Your task to perform on an android device: What is the news today? Image 0: 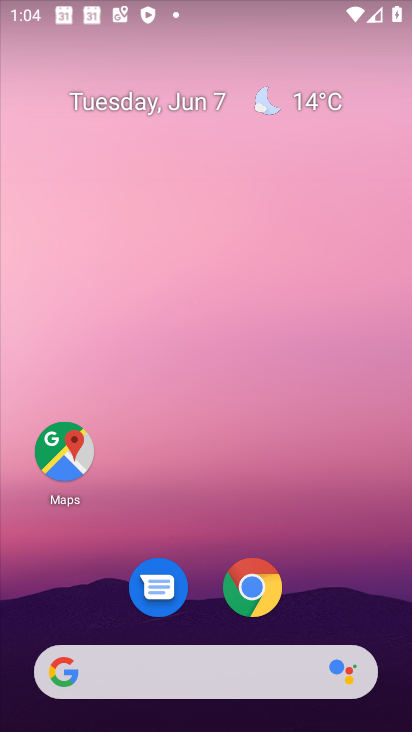
Step 0: drag from (237, 612) to (298, 166)
Your task to perform on an android device: What is the news today? Image 1: 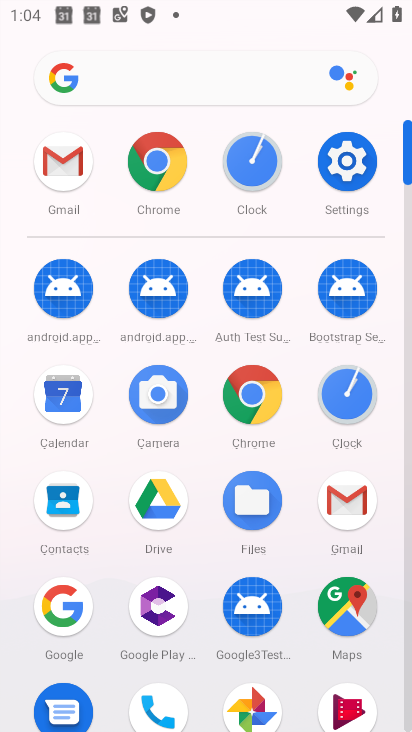
Step 1: click (48, 623)
Your task to perform on an android device: What is the news today? Image 2: 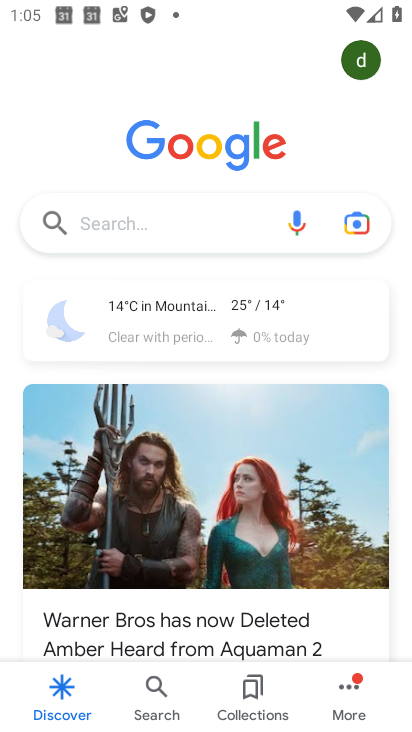
Step 2: click (164, 223)
Your task to perform on an android device: What is the news today? Image 3: 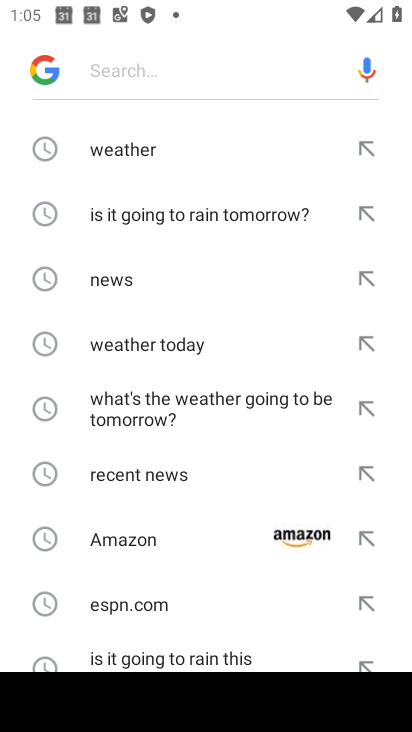
Step 3: click (175, 284)
Your task to perform on an android device: What is the news today? Image 4: 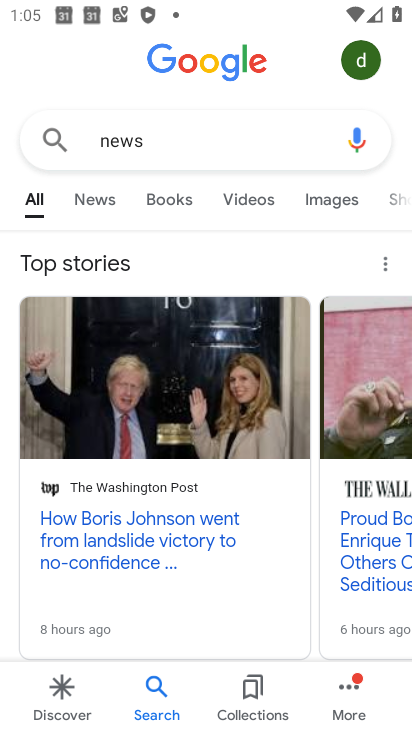
Step 4: click (126, 202)
Your task to perform on an android device: What is the news today? Image 5: 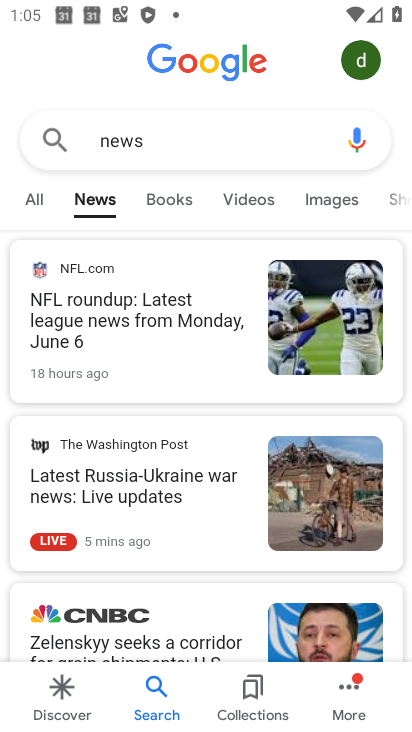
Step 5: task complete